Your task to perform on an android device: Open the web browser Image 0: 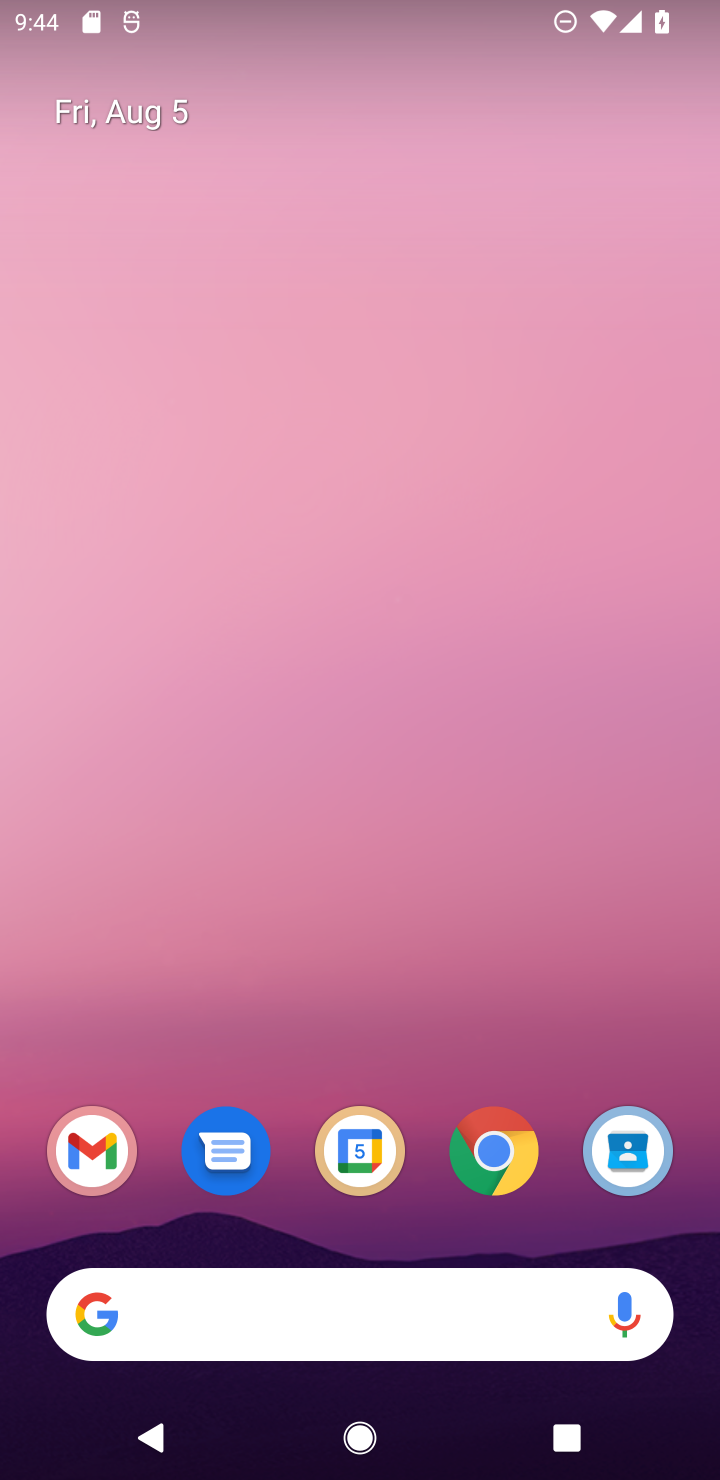
Step 0: click (491, 1163)
Your task to perform on an android device: Open the web browser Image 1: 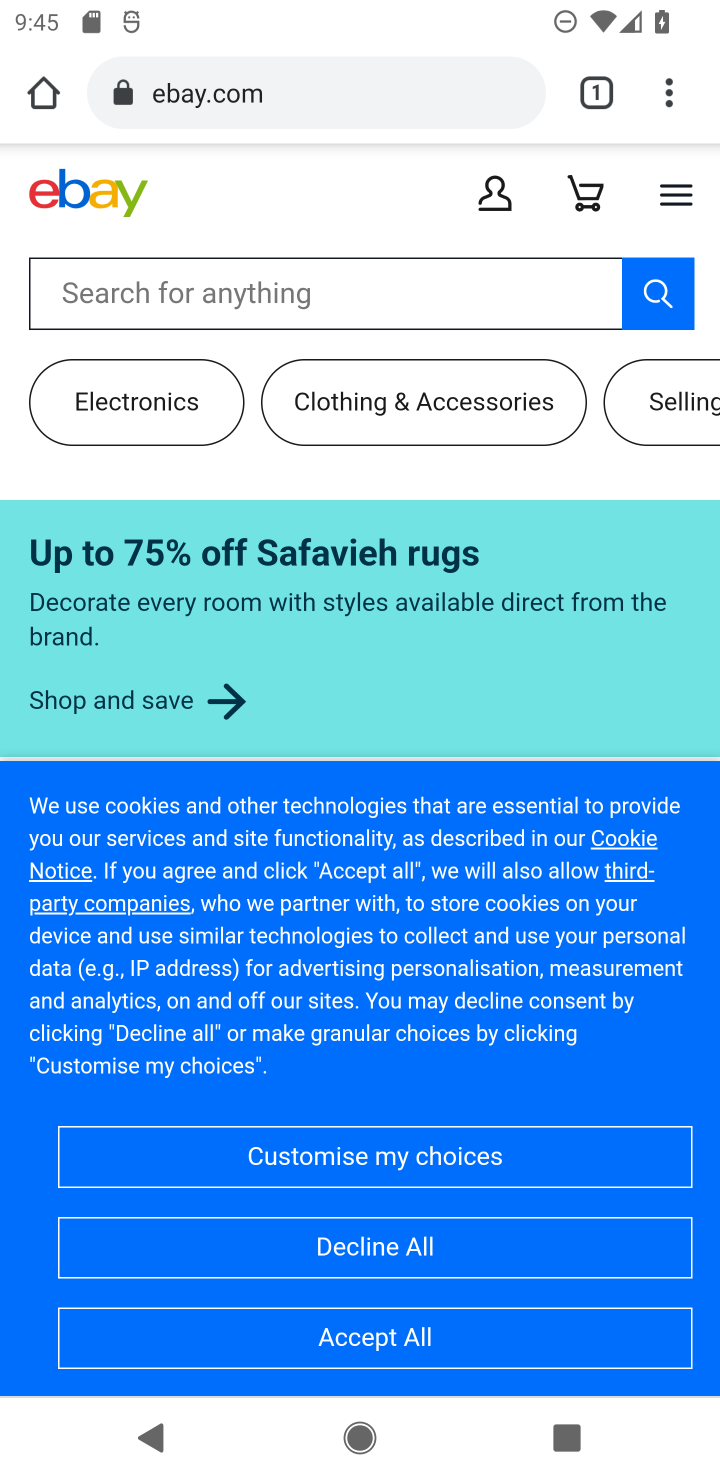
Step 1: task complete